Your task to perform on an android device: Do I have any events this weekend? Image 0: 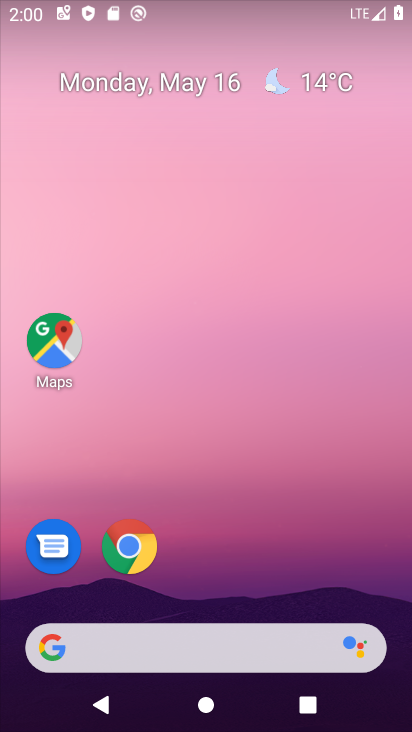
Step 0: drag from (283, 665) to (230, 238)
Your task to perform on an android device: Do I have any events this weekend? Image 1: 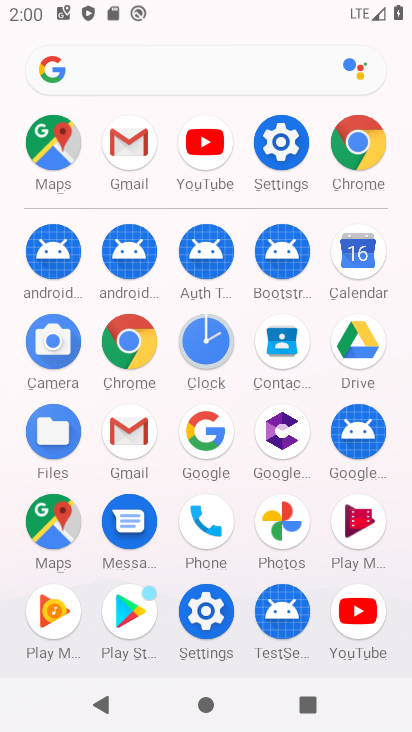
Step 1: click (353, 252)
Your task to perform on an android device: Do I have any events this weekend? Image 2: 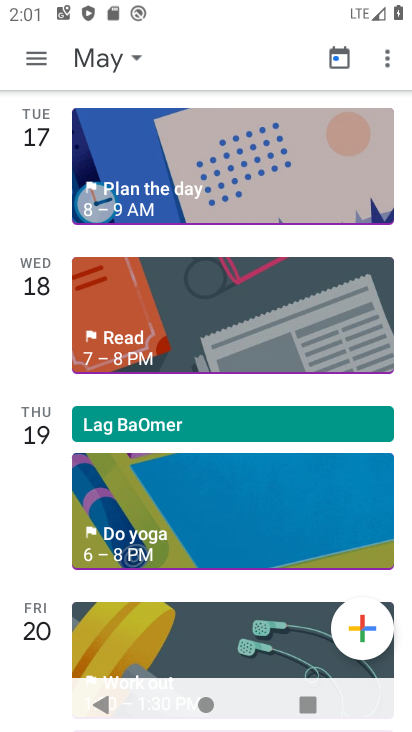
Step 2: click (43, 55)
Your task to perform on an android device: Do I have any events this weekend? Image 3: 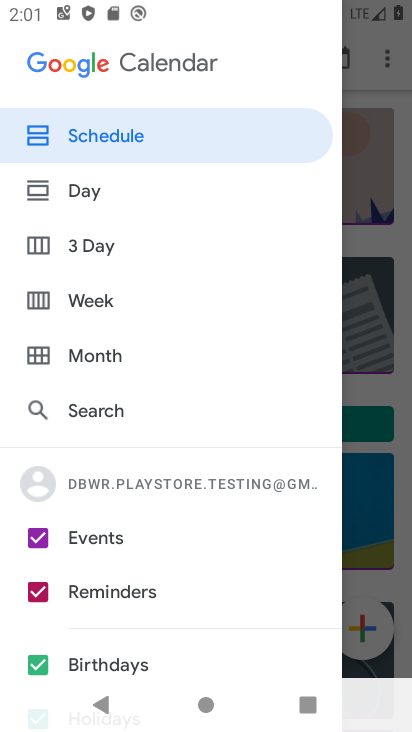
Step 3: click (109, 366)
Your task to perform on an android device: Do I have any events this weekend? Image 4: 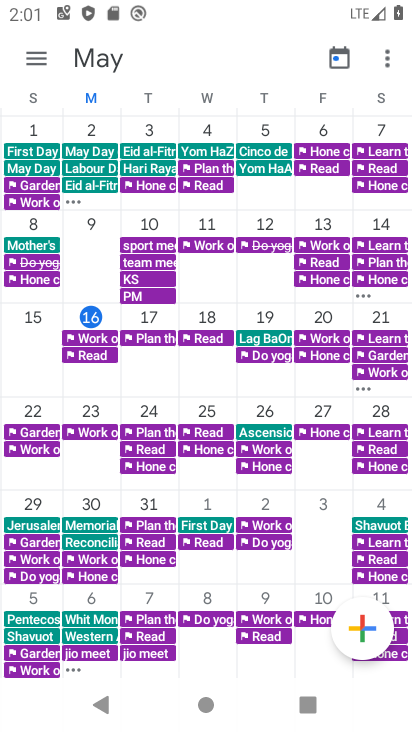
Step 4: click (87, 319)
Your task to perform on an android device: Do I have any events this weekend? Image 5: 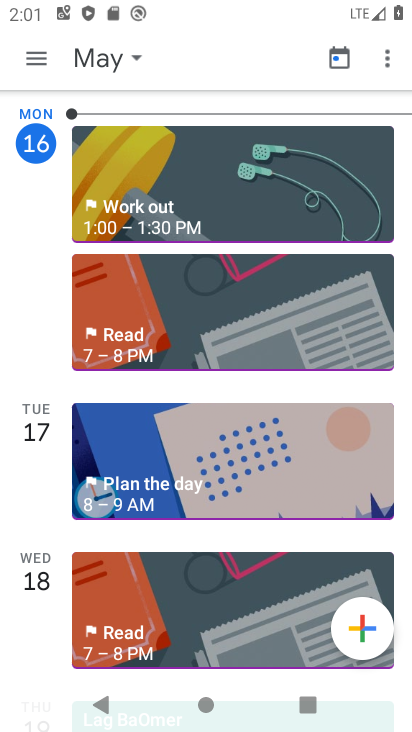
Step 5: task complete